Your task to perform on an android device: change alarm snooze length Image 0: 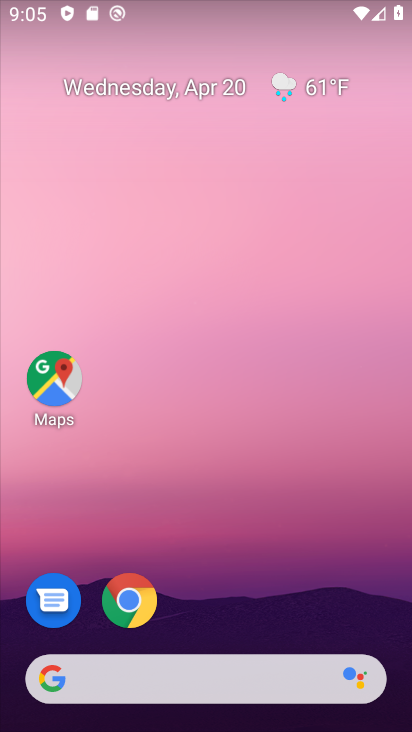
Step 0: drag from (237, 621) to (202, 137)
Your task to perform on an android device: change alarm snooze length Image 1: 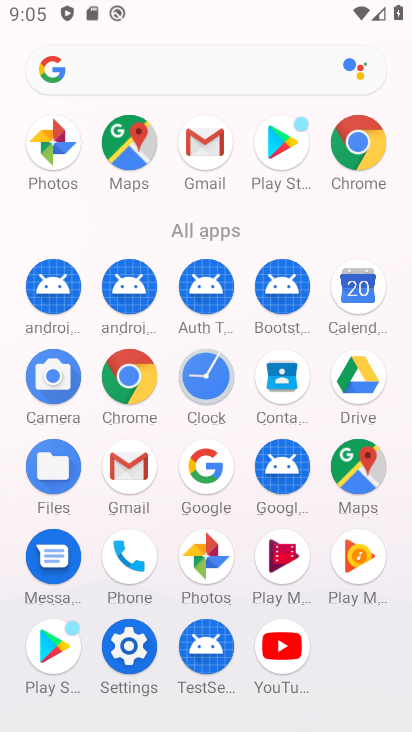
Step 1: click (210, 371)
Your task to perform on an android device: change alarm snooze length Image 2: 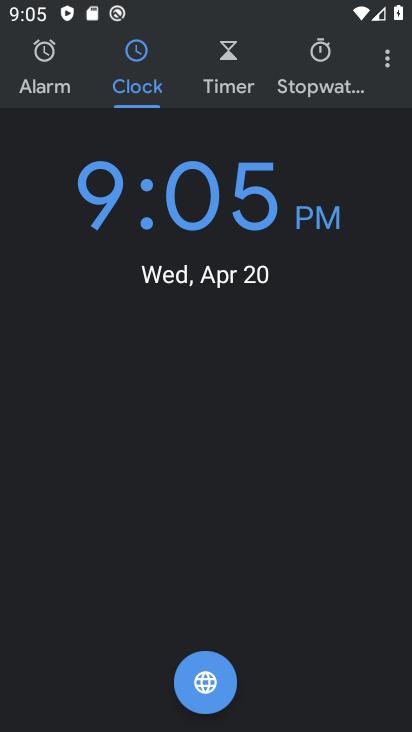
Step 2: click (382, 68)
Your task to perform on an android device: change alarm snooze length Image 3: 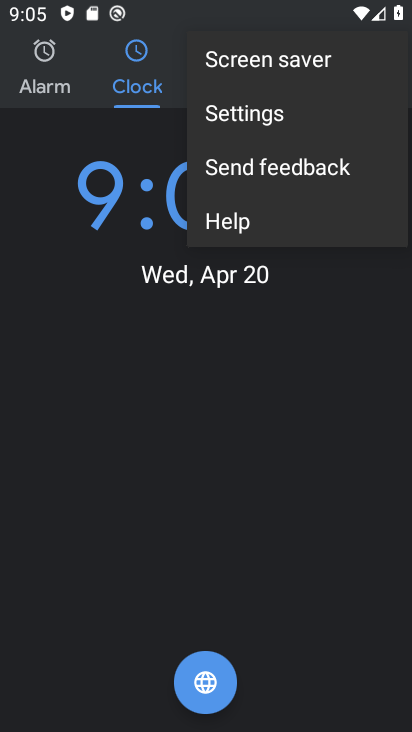
Step 3: click (278, 124)
Your task to perform on an android device: change alarm snooze length Image 4: 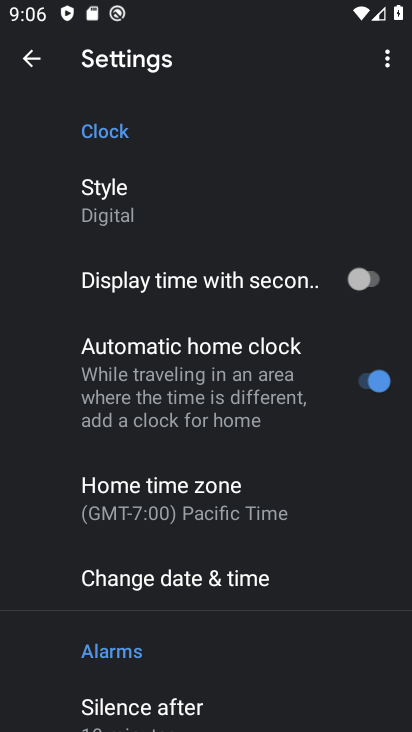
Step 4: drag from (155, 628) to (145, 236)
Your task to perform on an android device: change alarm snooze length Image 5: 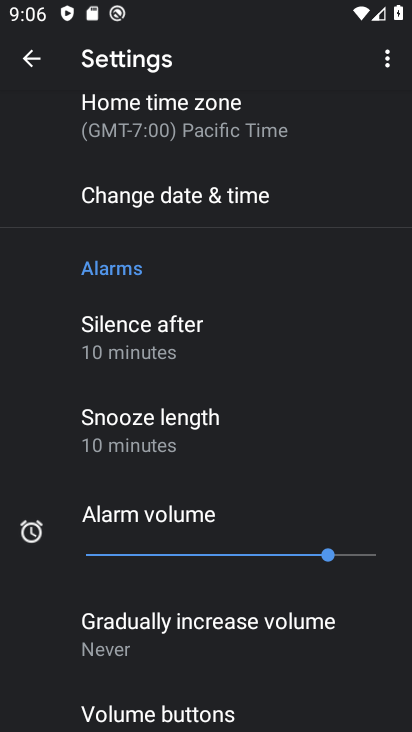
Step 5: click (143, 447)
Your task to perform on an android device: change alarm snooze length Image 6: 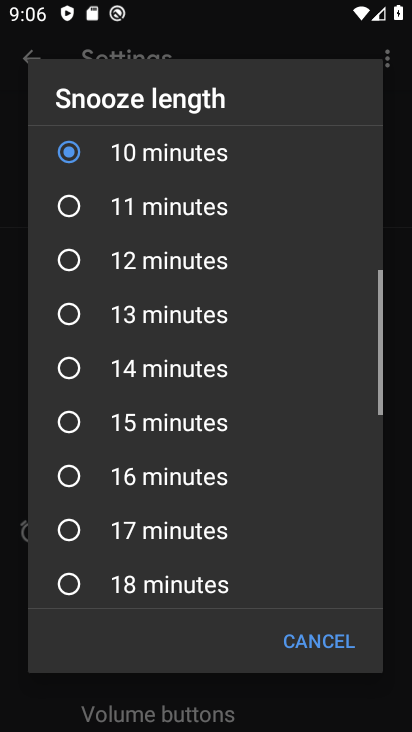
Step 6: click (162, 492)
Your task to perform on an android device: change alarm snooze length Image 7: 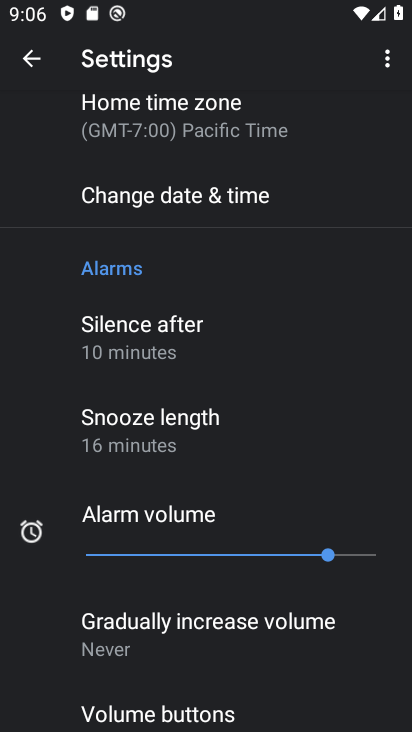
Step 7: click (186, 456)
Your task to perform on an android device: change alarm snooze length Image 8: 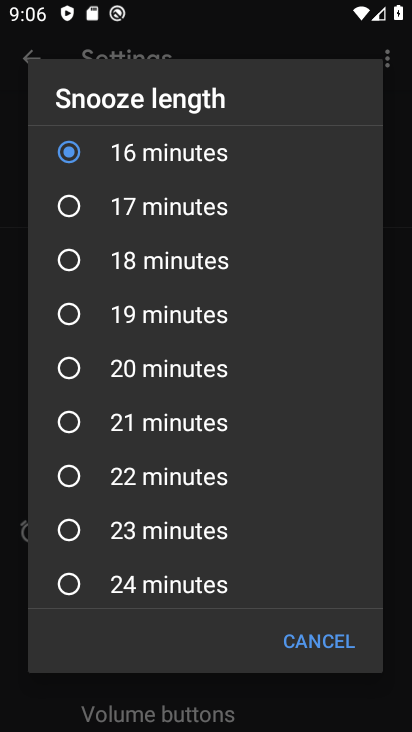
Step 8: click (112, 535)
Your task to perform on an android device: change alarm snooze length Image 9: 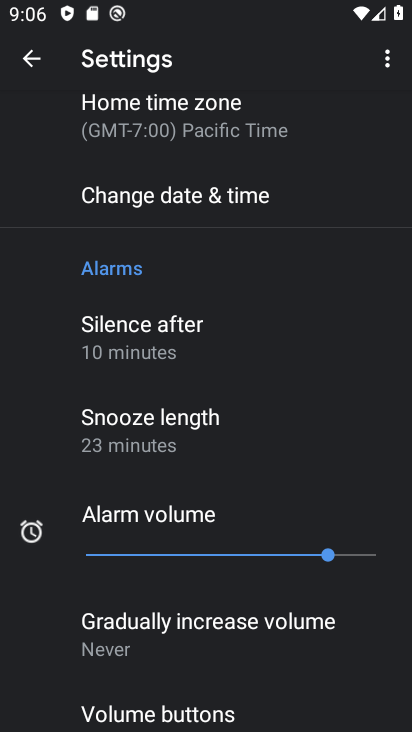
Step 9: task complete